Your task to perform on an android device: Open calendar and show me the third week of next month Image 0: 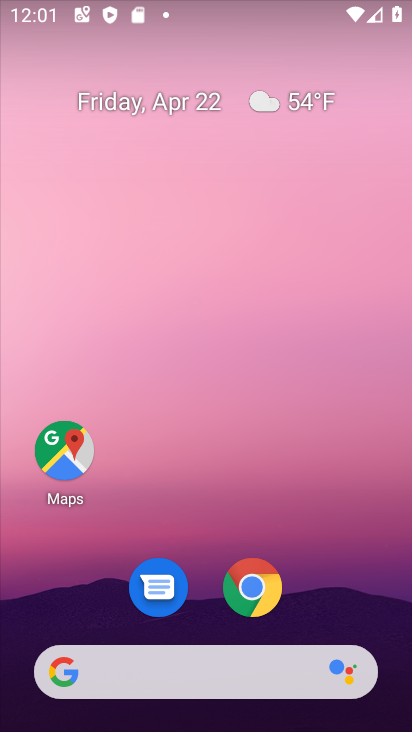
Step 0: drag from (387, 513) to (403, 11)
Your task to perform on an android device: Open calendar and show me the third week of next month Image 1: 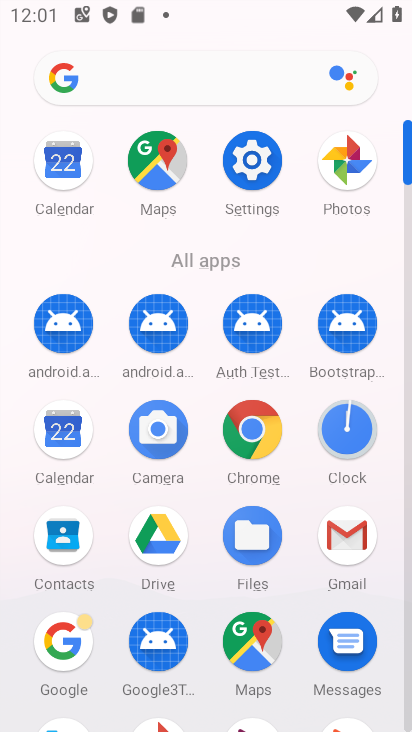
Step 1: click (64, 437)
Your task to perform on an android device: Open calendar and show me the third week of next month Image 2: 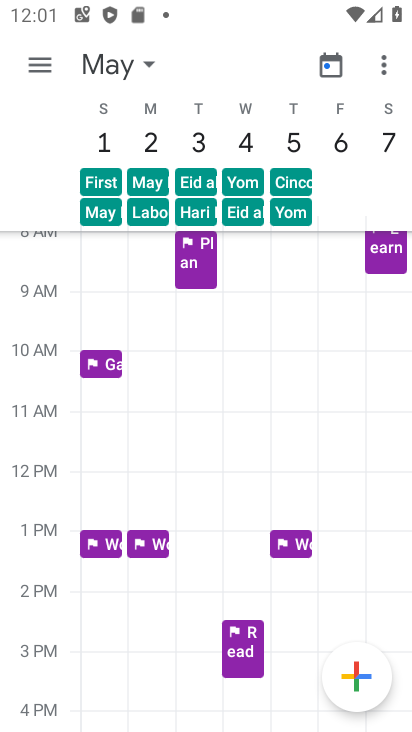
Step 2: task complete